Your task to perform on an android device: Open Youtube and go to "Your channel" Image 0: 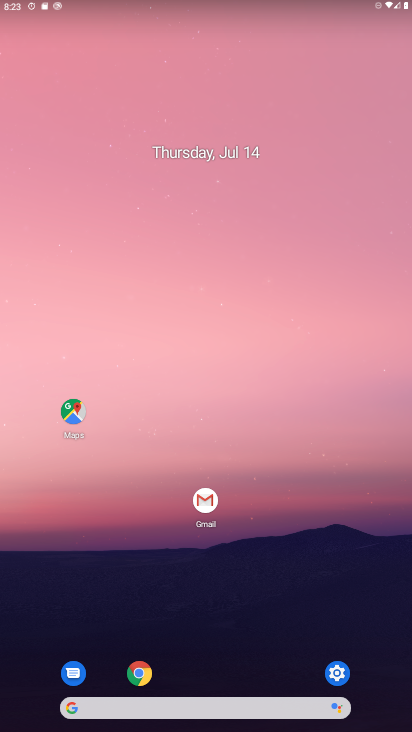
Step 0: press home button
Your task to perform on an android device: Open Youtube and go to "Your channel" Image 1: 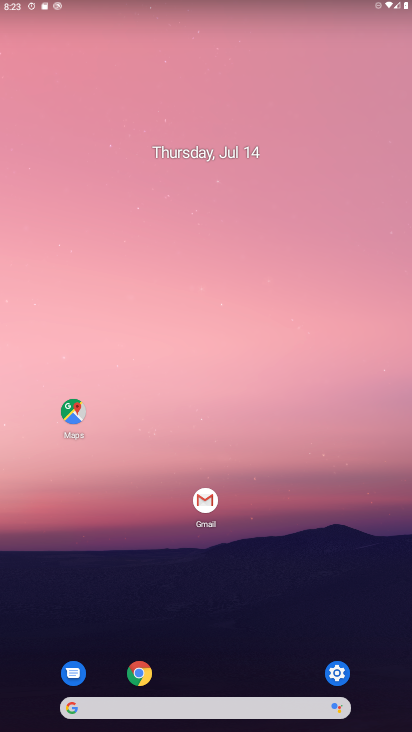
Step 1: drag from (283, 718) to (231, 134)
Your task to perform on an android device: Open Youtube and go to "Your channel" Image 2: 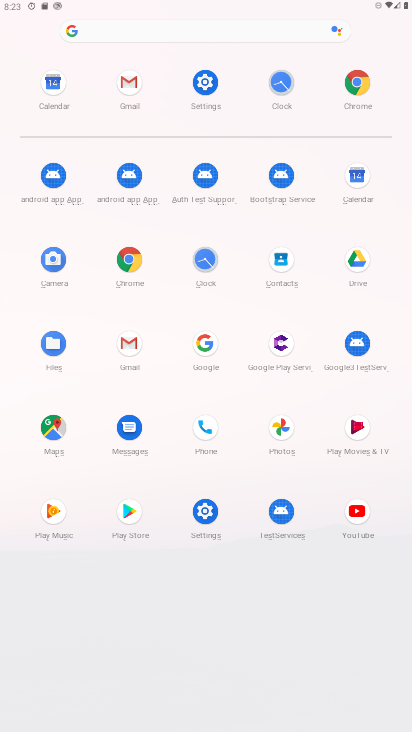
Step 2: click (352, 516)
Your task to perform on an android device: Open Youtube and go to "Your channel" Image 3: 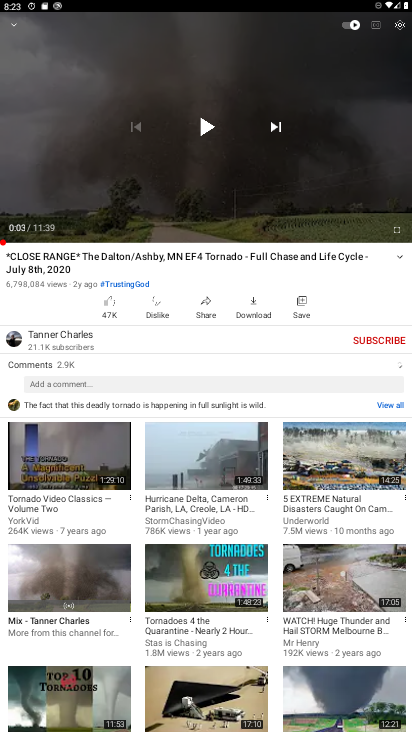
Step 3: click (19, 31)
Your task to perform on an android device: Open Youtube and go to "Your channel" Image 4: 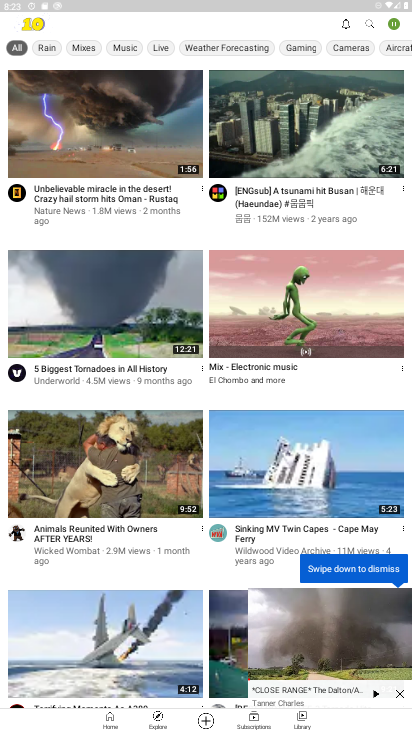
Step 4: click (387, 35)
Your task to perform on an android device: Open Youtube and go to "Your channel" Image 5: 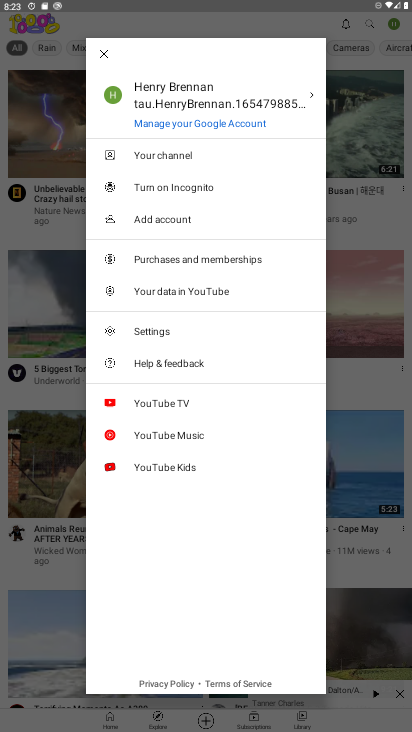
Step 5: click (194, 155)
Your task to perform on an android device: Open Youtube and go to "Your channel" Image 6: 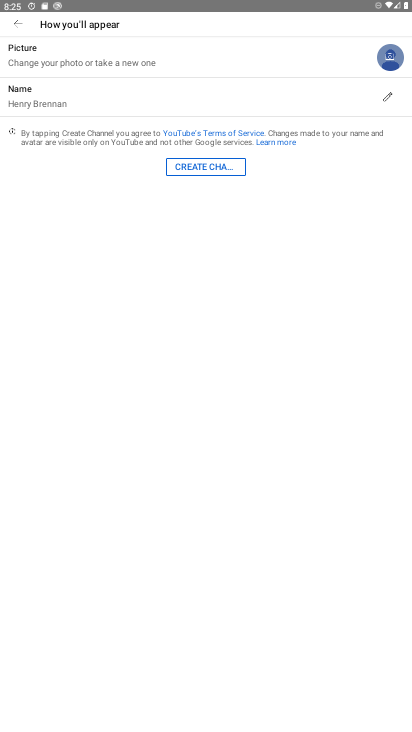
Step 6: task complete